Your task to perform on an android device: Open calendar and show me the fourth week of next month Image 0: 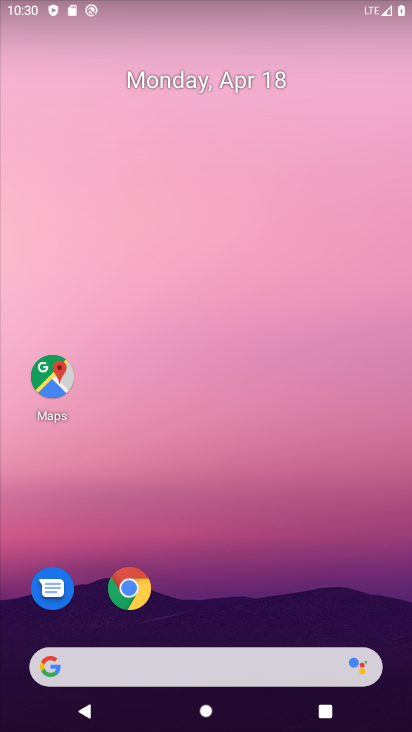
Step 0: drag from (372, 619) to (276, 60)
Your task to perform on an android device: Open calendar and show me the fourth week of next month Image 1: 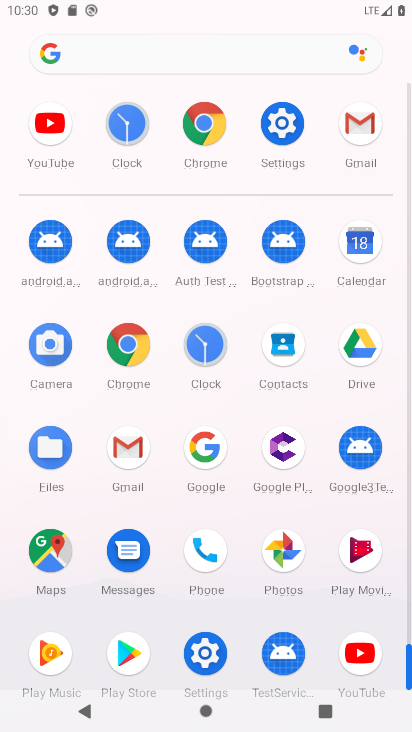
Step 1: click (361, 243)
Your task to perform on an android device: Open calendar and show me the fourth week of next month Image 2: 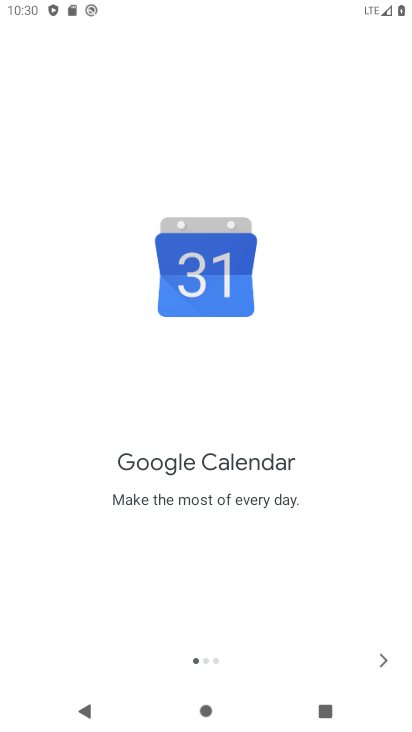
Step 2: click (380, 660)
Your task to perform on an android device: Open calendar and show me the fourth week of next month Image 3: 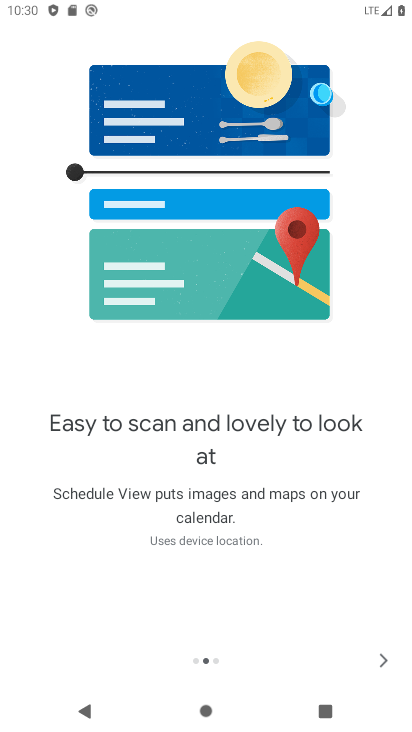
Step 3: click (380, 660)
Your task to perform on an android device: Open calendar and show me the fourth week of next month Image 4: 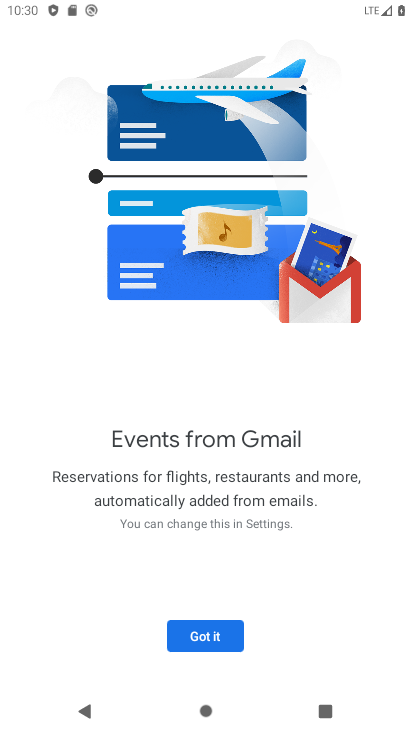
Step 4: click (201, 639)
Your task to perform on an android device: Open calendar and show me the fourth week of next month Image 5: 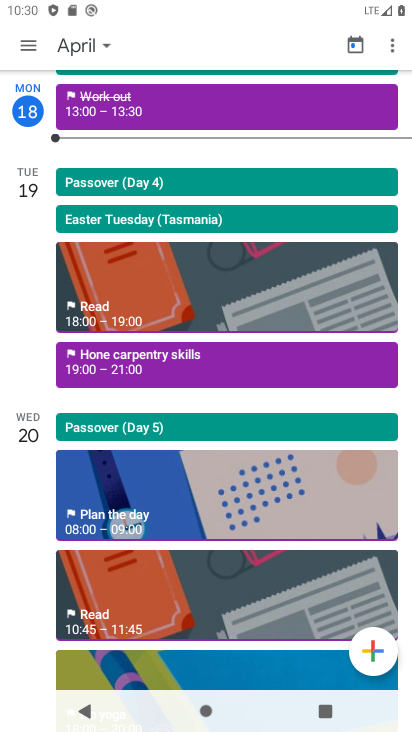
Step 5: click (27, 45)
Your task to perform on an android device: Open calendar and show me the fourth week of next month Image 6: 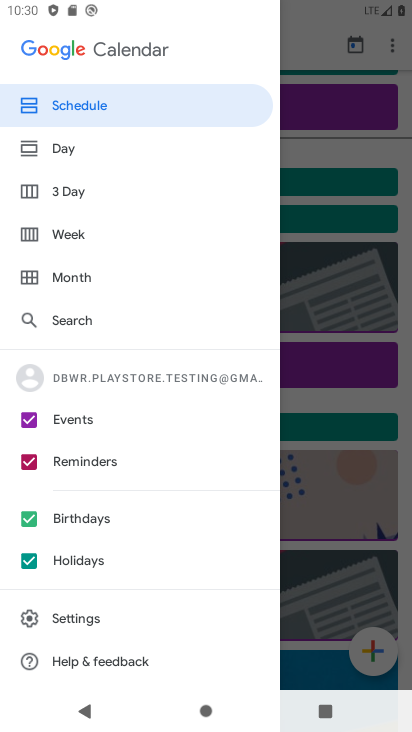
Step 6: click (67, 237)
Your task to perform on an android device: Open calendar and show me the fourth week of next month Image 7: 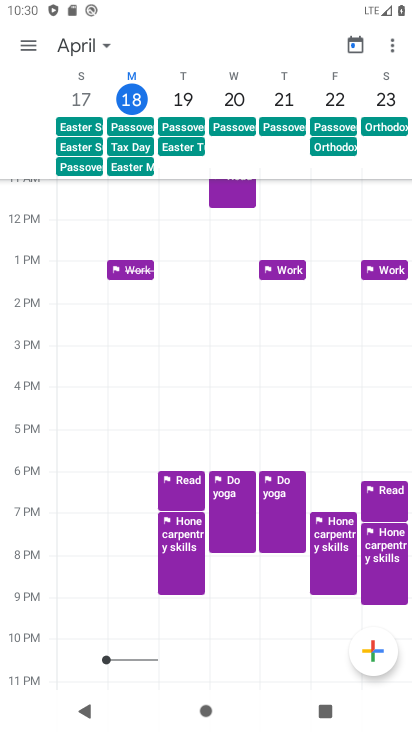
Step 7: click (101, 41)
Your task to perform on an android device: Open calendar and show me the fourth week of next month Image 8: 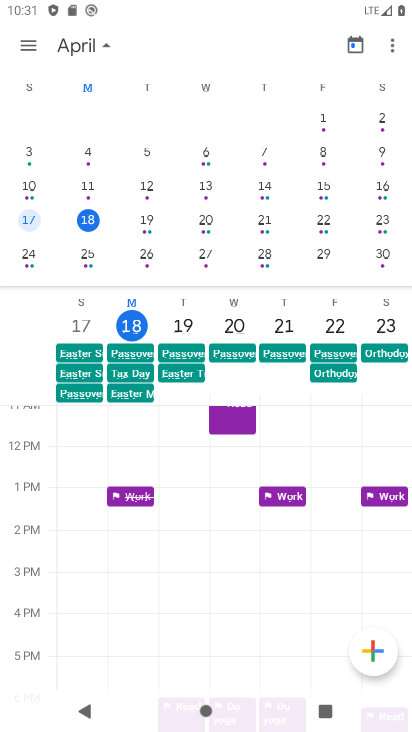
Step 8: drag from (369, 220) to (42, 200)
Your task to perform on an android device: Open calendar and show me the fourth week of next month Image 9: 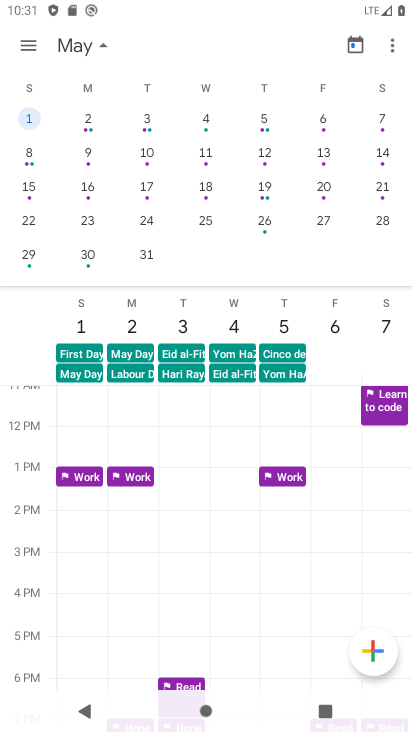
Step 9: click (33, 222)
Your task to perform on an android device: Open calendar and show me the fourth week of next month Image 10: 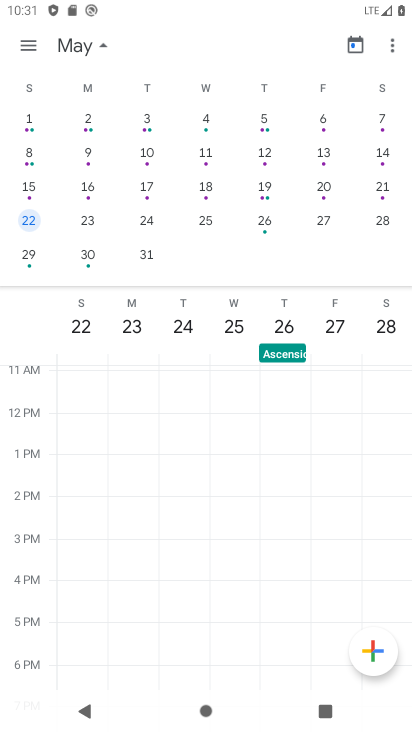
Step 10: task complete